Your task to perform on an android device: Show me popular videos on Youtube Image 0: 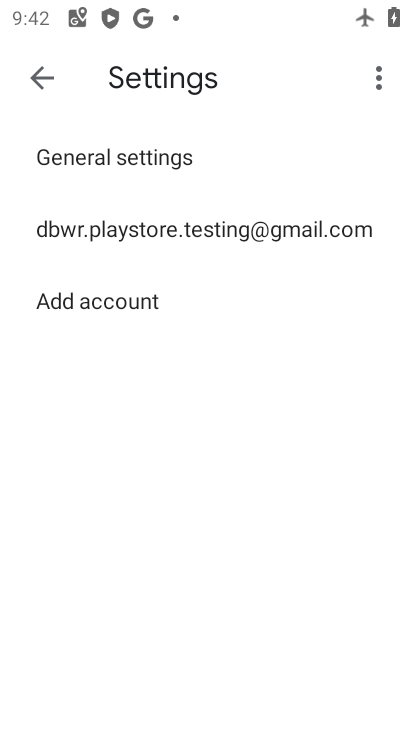
Step 0: press home button
Your task to perform on an android device: Show me popular videos on Youtube Image 1: 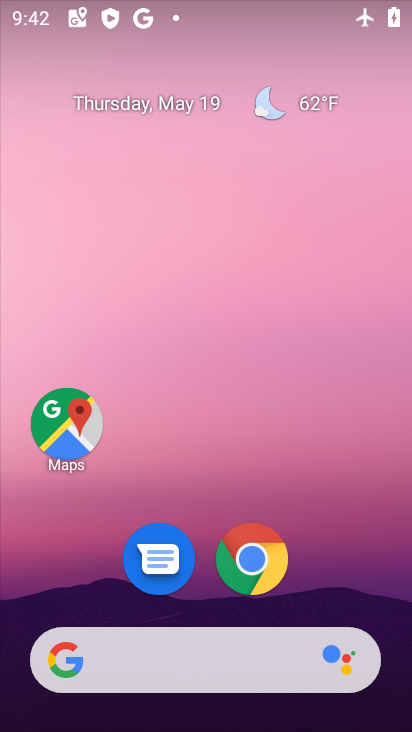
Step 1: drag from (345, 527) to (340, 125)
Your task to perform on an android device: Show me popular videos on Youtube Image 2: 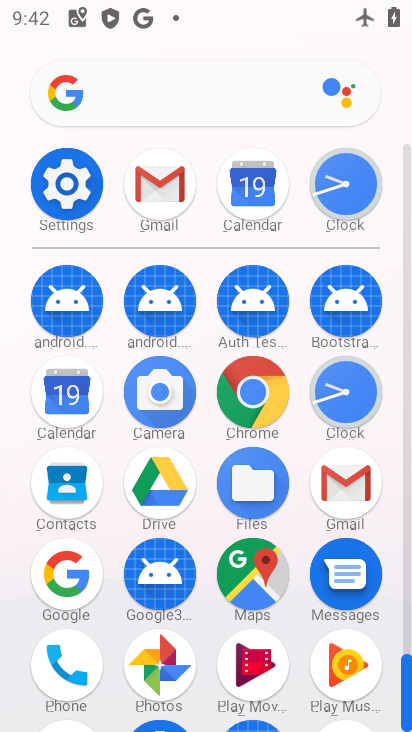
Step 2: drag from (300, 500) to (380, 124)
Your task to perform on an android device: Show me popular videos on Youtube Image 3: 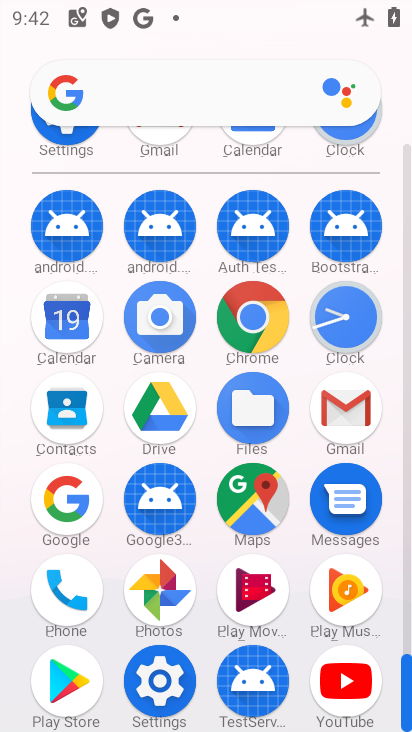
Step 3: click (360, 683)
Your task to perform on an android device: Show me popular videos on Youtube Image 4: 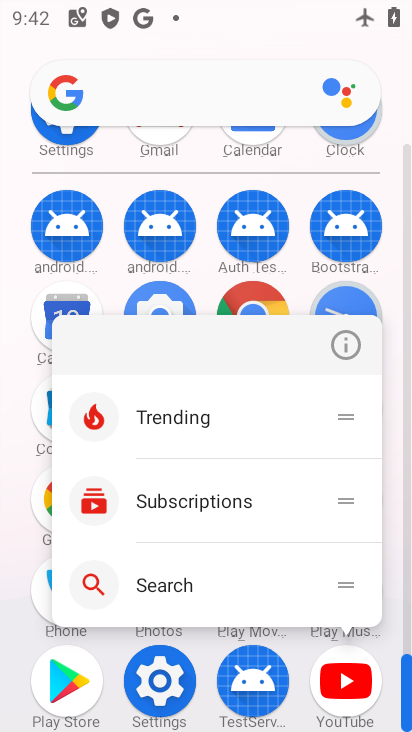
Step 4: click (360, 683)
Your task to perform on an android device: Show me popular videos on Youtube Image 5: 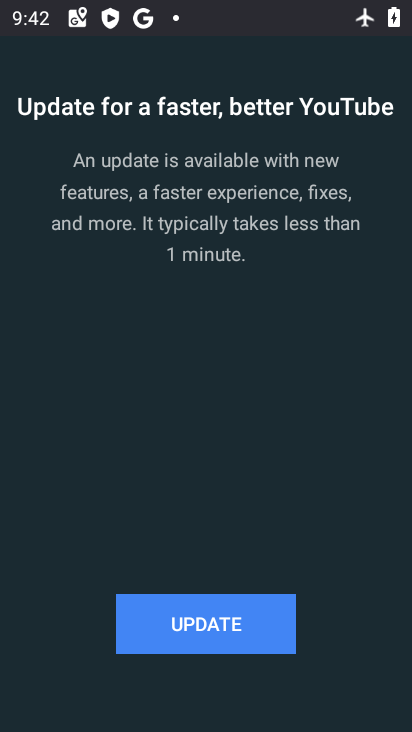
Step 5: task complete